Your task to perform on an android device: Open accessibility settings Image 0: 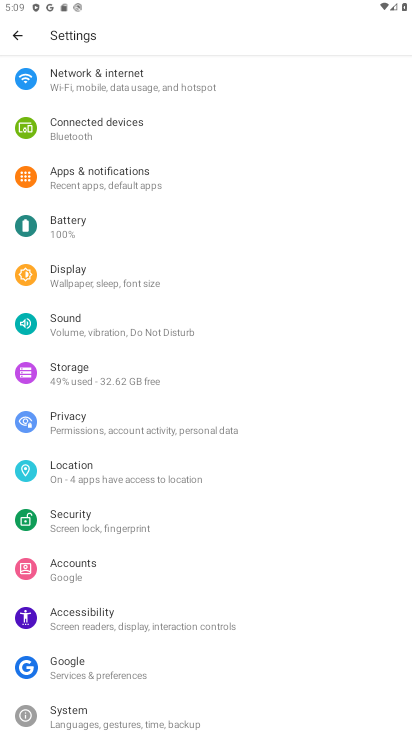
Step 0: click (117, 617)
Your task to perform on an android device: Open accessibility settings Image 1: 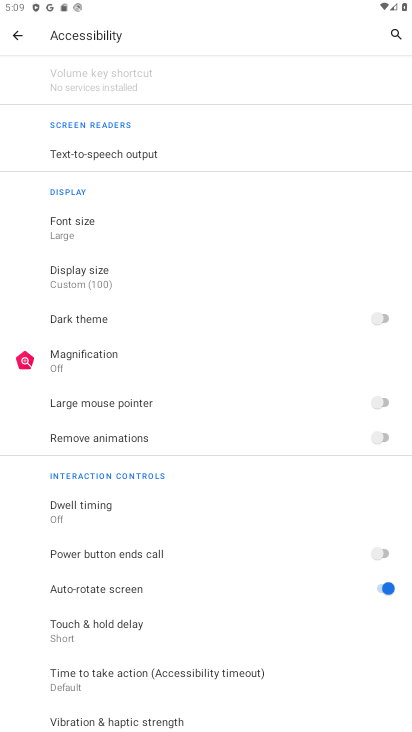
Step 1: task complete